Your task to perform on an android device: open a bookmark in the chrome app Image 0: 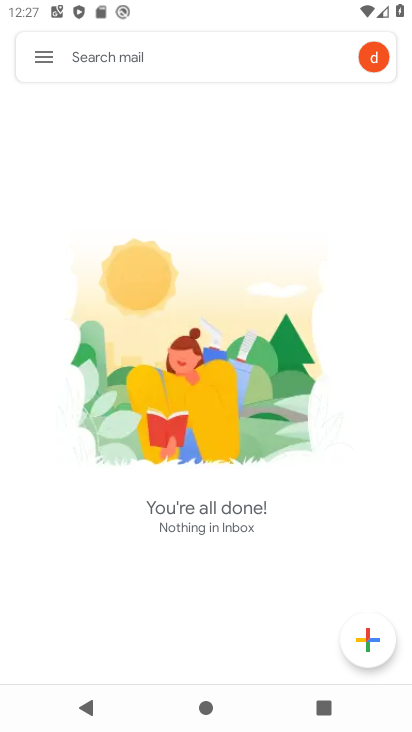
Step 0: press home button
Your task to perform on an android device: open a bookmark in the chrome app Image 1: 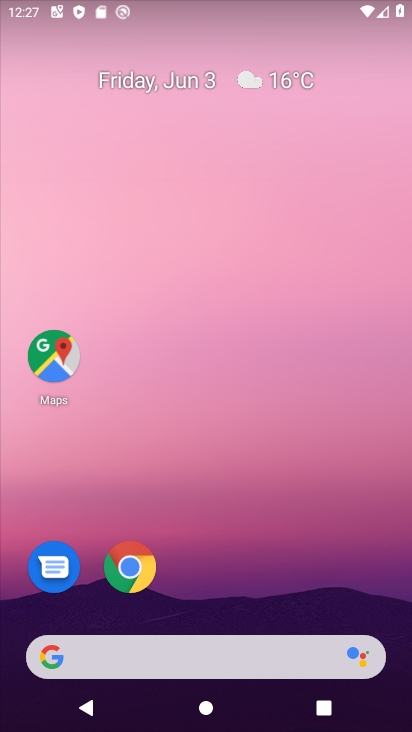
Step 1: click (129, 565)
Your task to perform on an android device: open a bookmark in the chrome app Image 2: 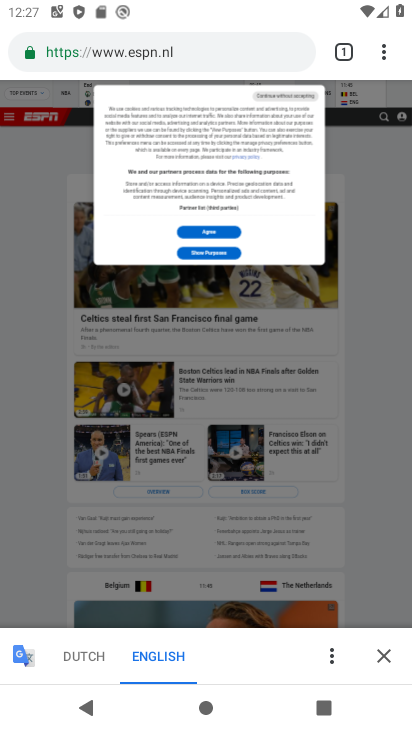
Step 2: click (381, 50)
Your task to perform on an android device: open a bookmark in the chrome app Image 3: 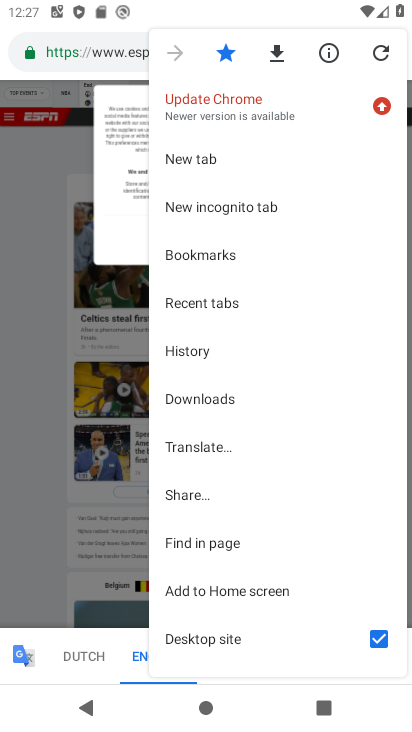
Step 3: click (209, 256)
Your task to perform on an android device: open a bookmark in the chrome app Image 4: 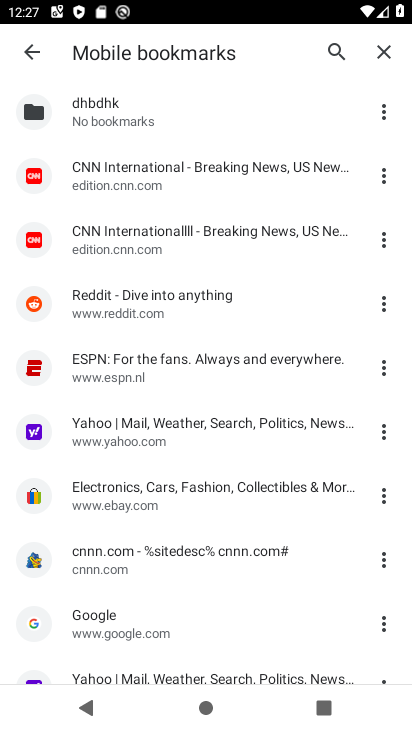
Step 4: click (197, 290)
Your task to perform on an android device: open a bookmark in the chrome app Image 5: 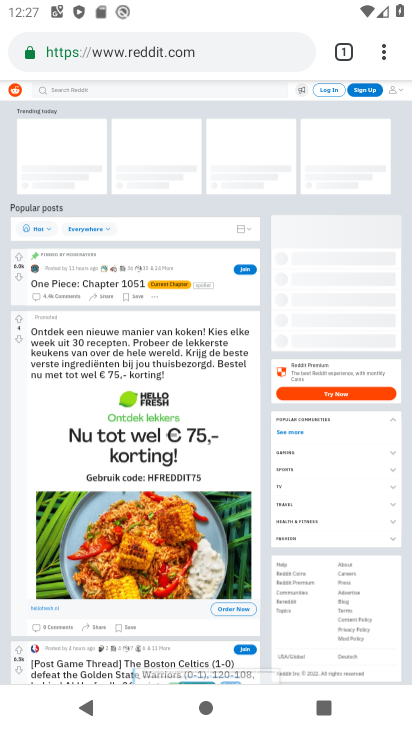
Step 5: task complete